Your task to perform on an android device: Open settings on Google Maps Image 0: 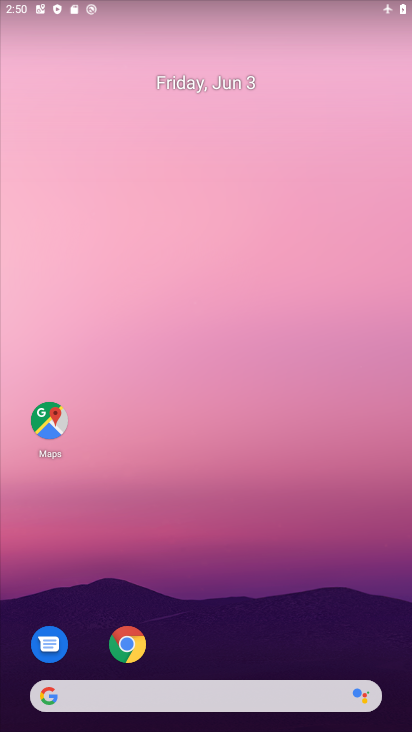
Step 0: click (61, 415)
Your task to perform on an android device: Open settings on Google Maps Image 1: 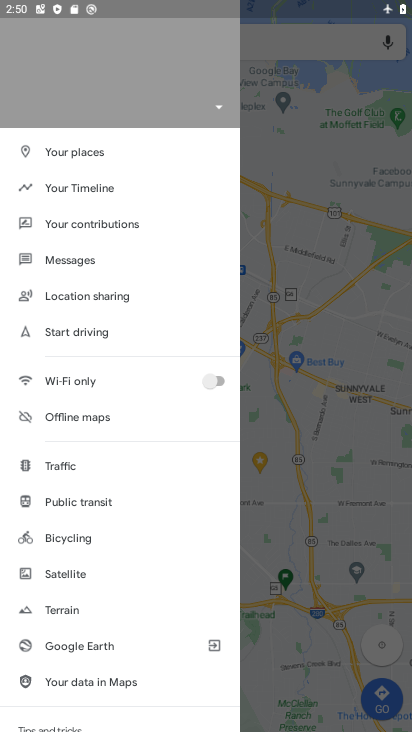
Step 1: drag from (86, 635) to (109, 433)
Your task to perform on an android device: Open settings on Google Maps Image 2: 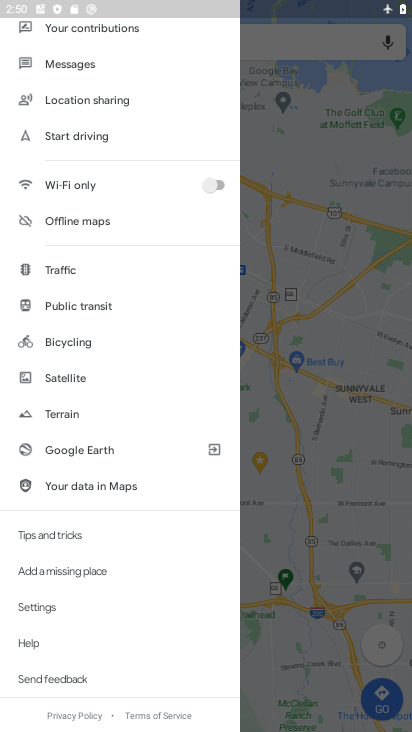
Step 2: click (63, 607)
Your task to perform on an android device: Open settings on Google Maps Image 3: 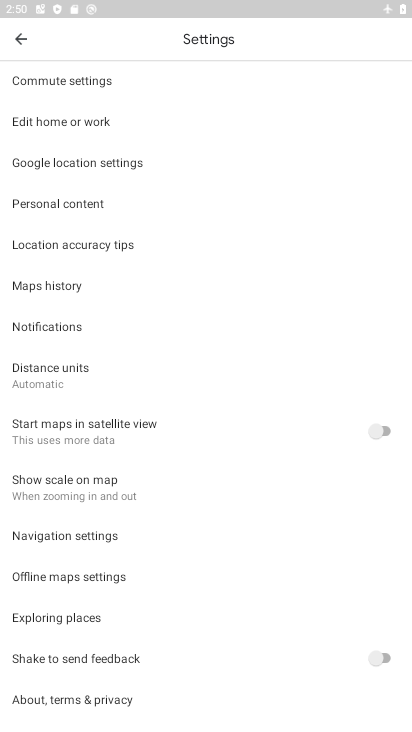
Step 3: task complete